Your task to perform on an android device: see tabs open on other devices in the chrome app Image 0: 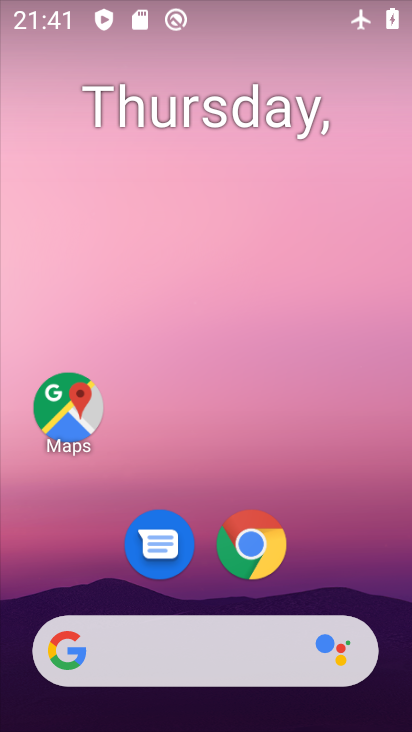
Step 0: click (254, 556)
Your task to perform on an android device: see tabs open on other devices in the chrome app Image 1: 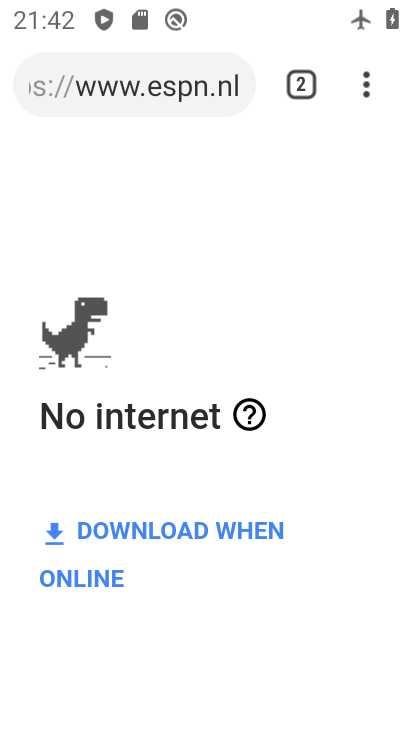
Step 1: click (360, 87)
Your task to perform on an android device: see tabs open on other devices in the chrome app Image 2: 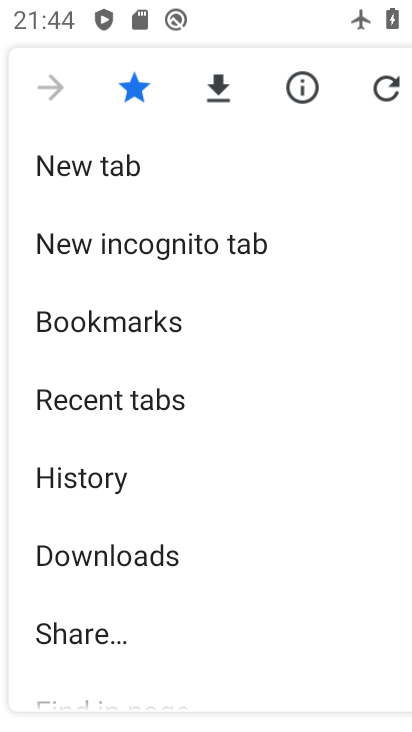
Step 2: click (187, 405)
Your task to perform on an android device: see tabs open on other devices in the chrome app Image 3: 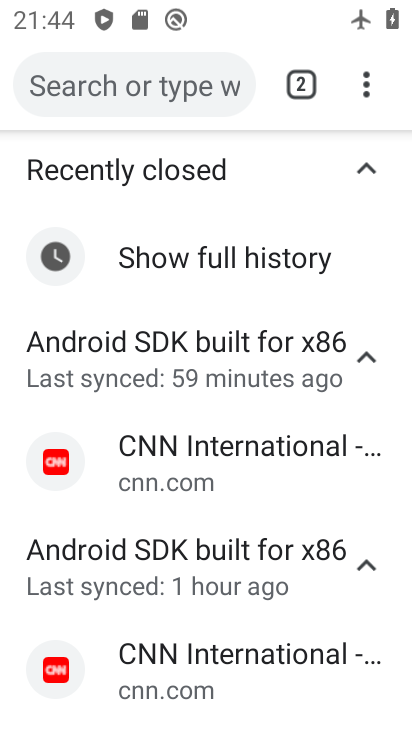
Step 3: task complete